Your task to perform on an android device: toggle javascript in the chrome app Image 0: 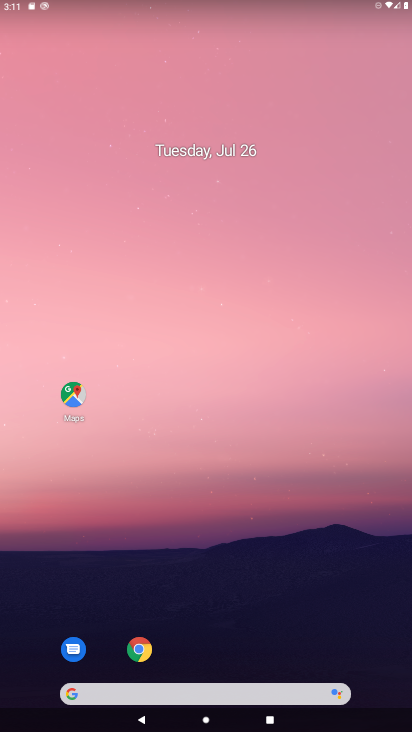
Step 0: click (141, 644)
Your task to perform on an android device: toggle javascript in the chrome app Image 1: 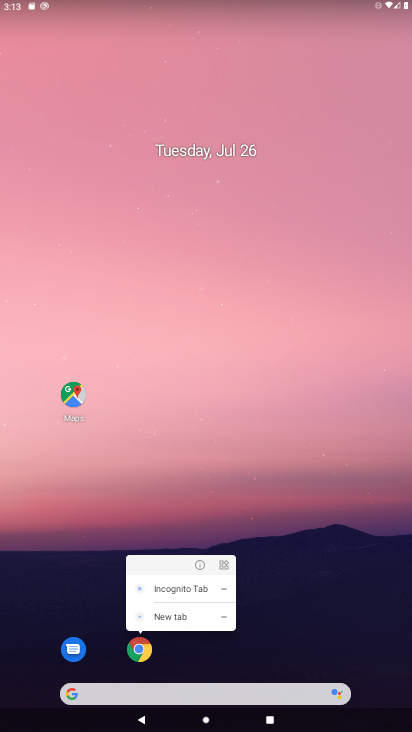
Step 1: click (141, 644)
Your task to perform on an android device: toggle javascript in the chrome app Image 2: 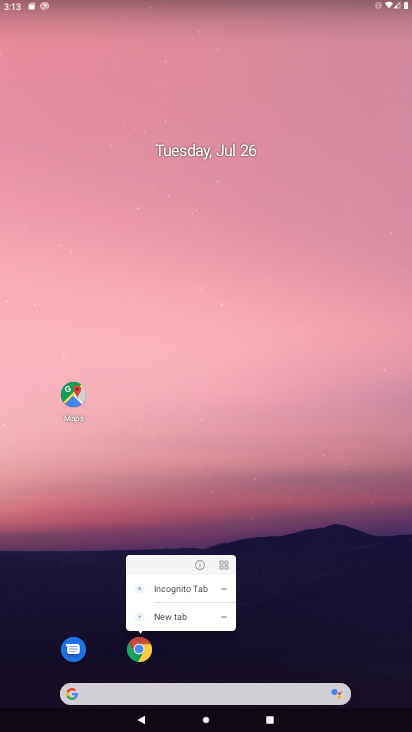
Step 2: click (141, 644)
Your task to perform on an android device: toggle javascript in the chrome app Image 3: 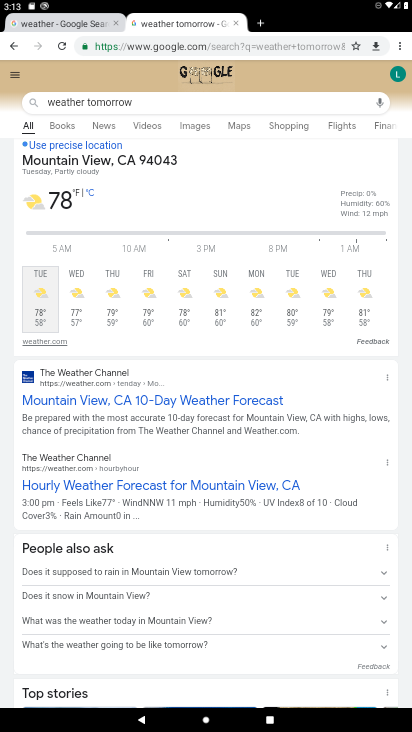
Step 3: drag from (399, 52) to (319, 312)
Your task to perform on an android device: toggle javascript in the chrome app Image 4: 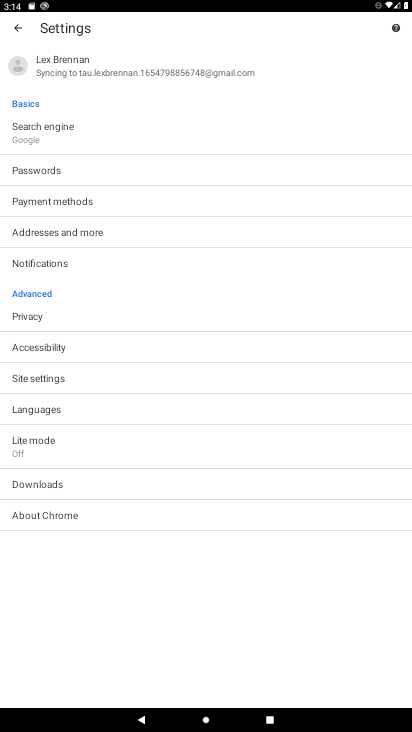
Step 4: click (60, 382)
Your task to perform on an android device: toggle javascript in the chrome app Image 5: 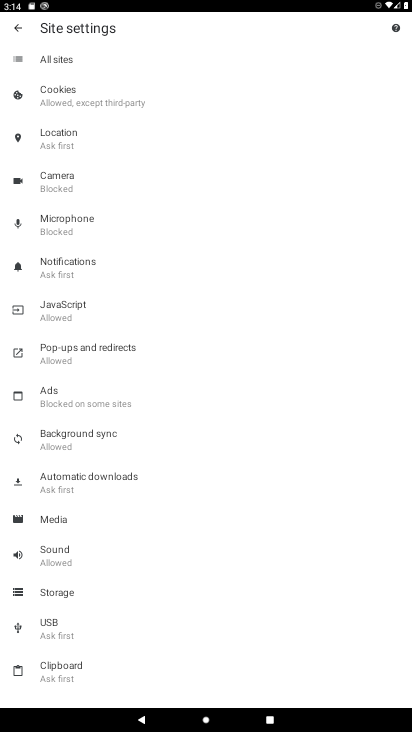
Step 5: click (122, 300)
Your task to perform on an android device: toggle javascript in the chrome app Image 6: 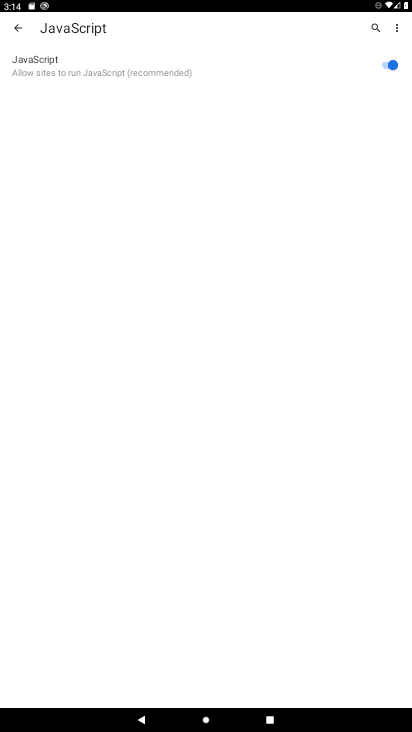
Step 6: click (388, 60)
Your task to perform on an android device: toggle javascript in the chrome app Image 7: 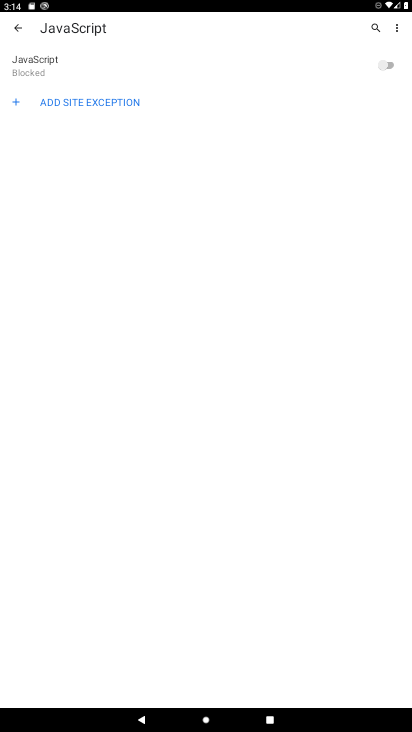
Step 7: task complete